Your task to perform on an android device: Open sound settings Image 0: 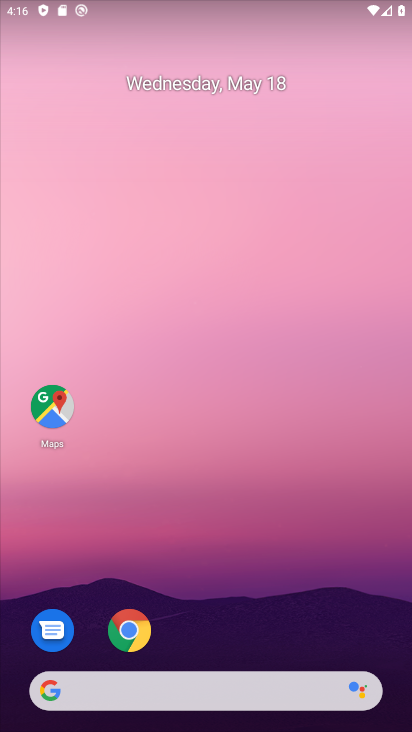
Step 0: drag from (223, 663) to (149, 17)
Your task to perform on an android device: Open sound settings Image 1: 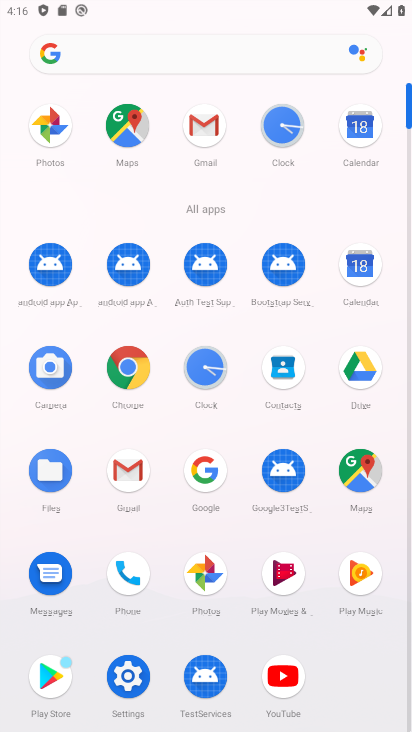
Step 1: click (123, 676)
Your task to perform on an android device: Open sound settings Image 2: 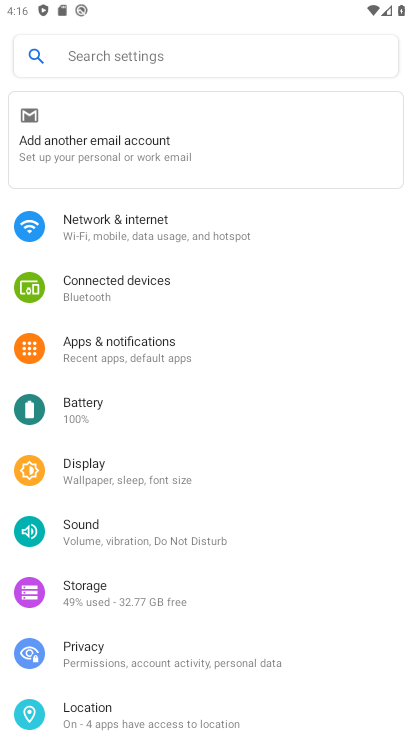
Step 2: click (108, 541)
Your task to perform on an android device: Open sound settings Image 3: 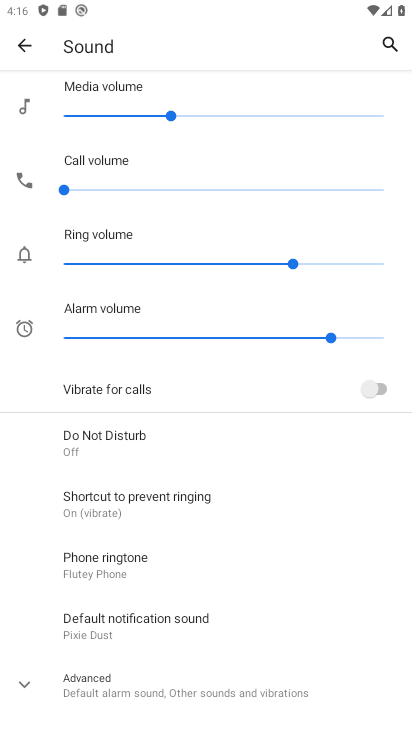
Step 3: task complete